Your task to perform on an android device: toggle sleep mode Image 0: 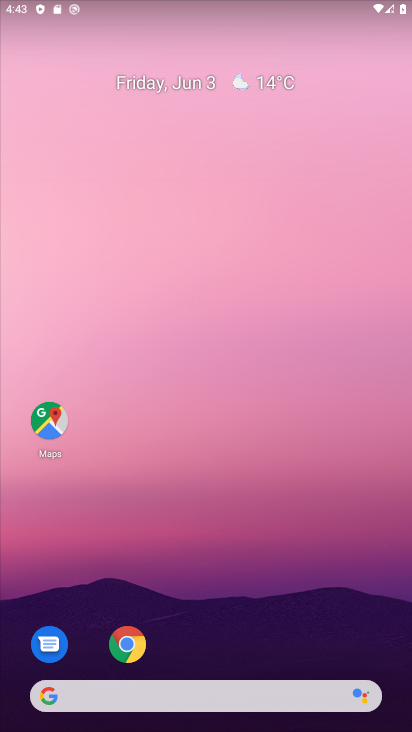
Step 0: drag from (171, 188) to (232, 727)
Your task to perform on an android device: toggle sleep mode Image 1: 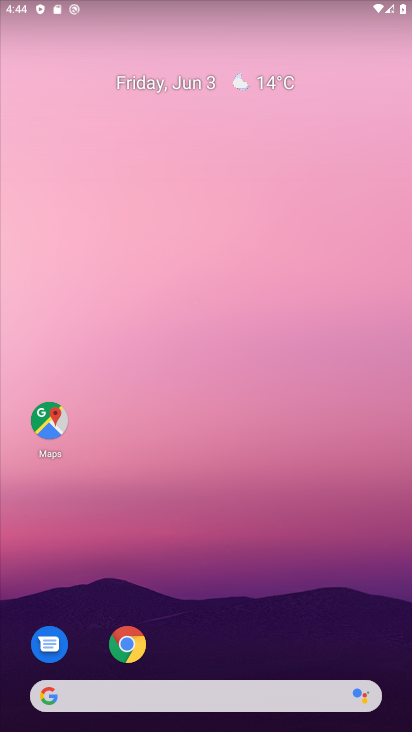
Step 1: drag from (227, 635) to (135, 57)
Your task to perform on an android device: toggle sleep mode Image 2: 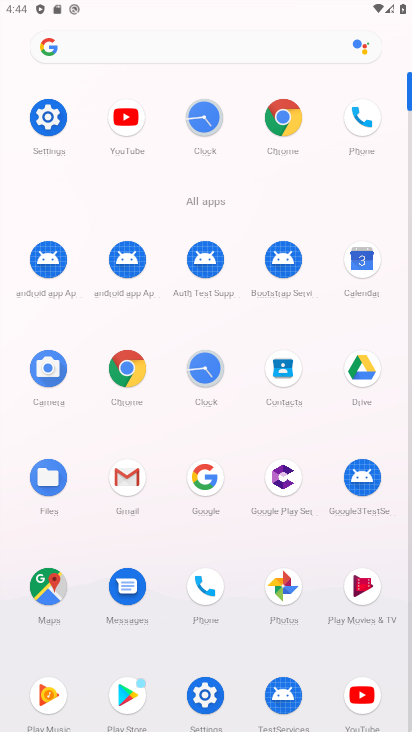
Step 2: click (48, 115)
Your task to perform on an android device: toggle sleep mode Image 3: 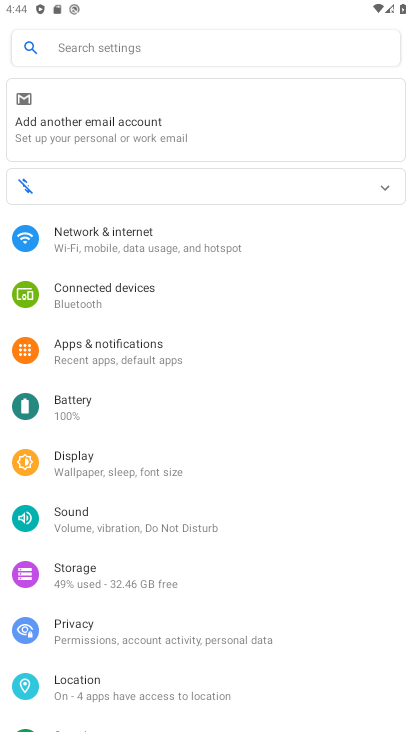
Step 3: click (48, 115)
Your task to perform on an android device: toggle sleep mode Image 4: 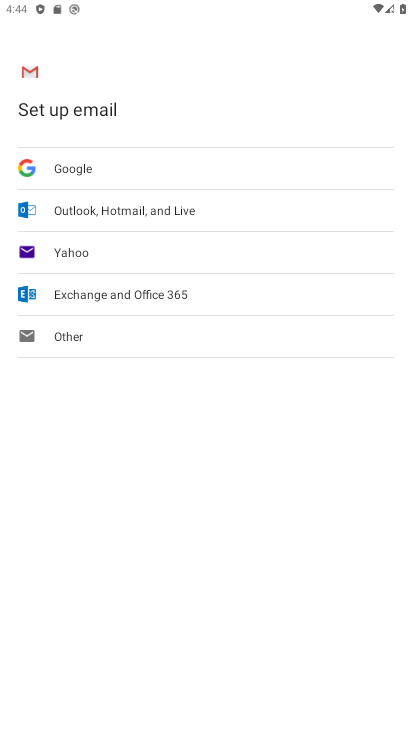
Step 4: task complete